Your task to perform on an android device: Search for "dell alienware" on amazon, select the first entry, and add it to the cart. Image 0: 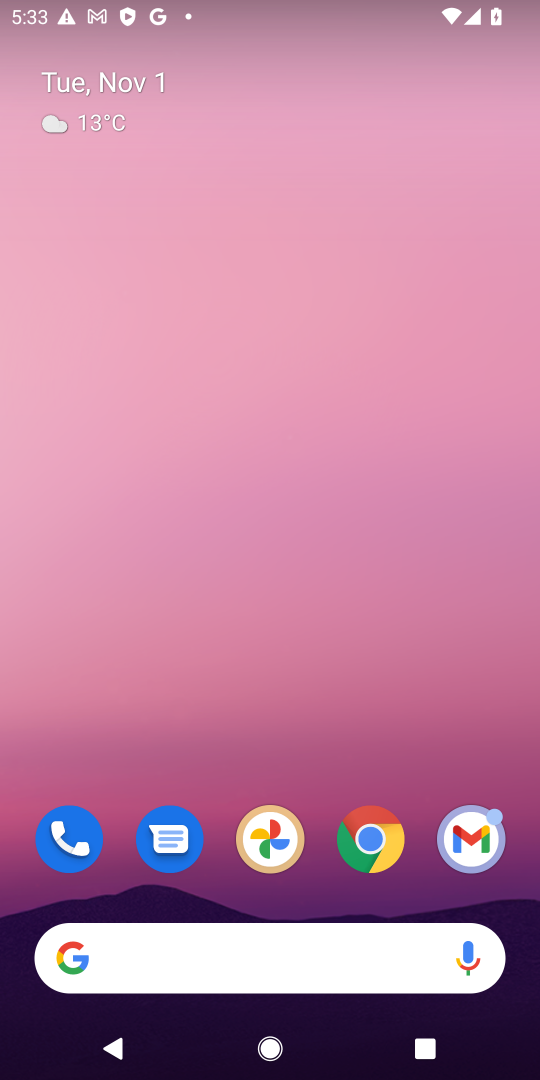
Step 0: drag from (321, 879) to (408, 96)
Your task to perform on an android device: Search for "dell alienware" on amazon, select the first entry, and add it to the cart. Image 1: 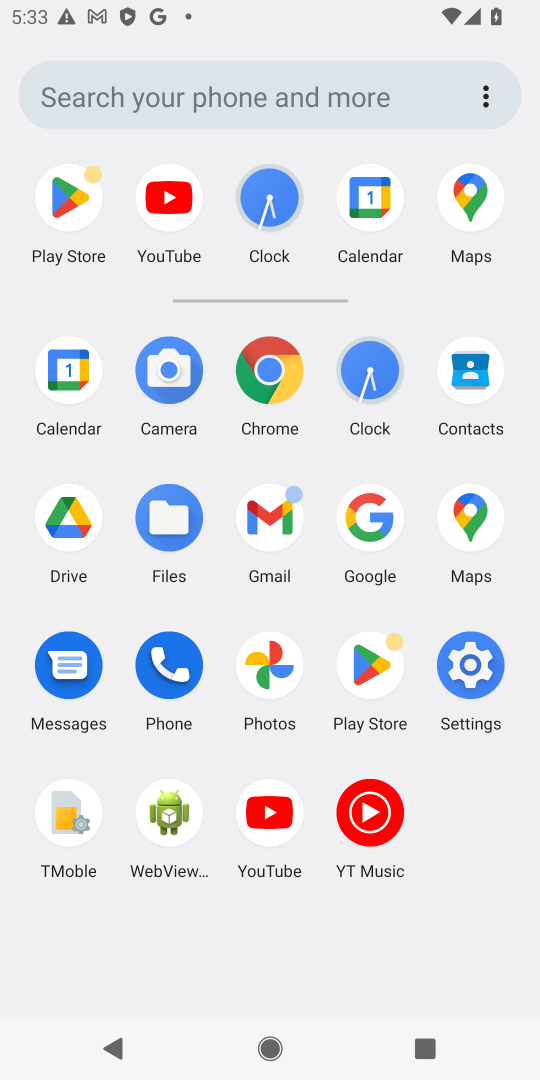
Step 1: click (262, 381)
Your task to perform on an android device: Search for "dell alienware" on amazon, select the first entry, and add it to the cart. Image 2: 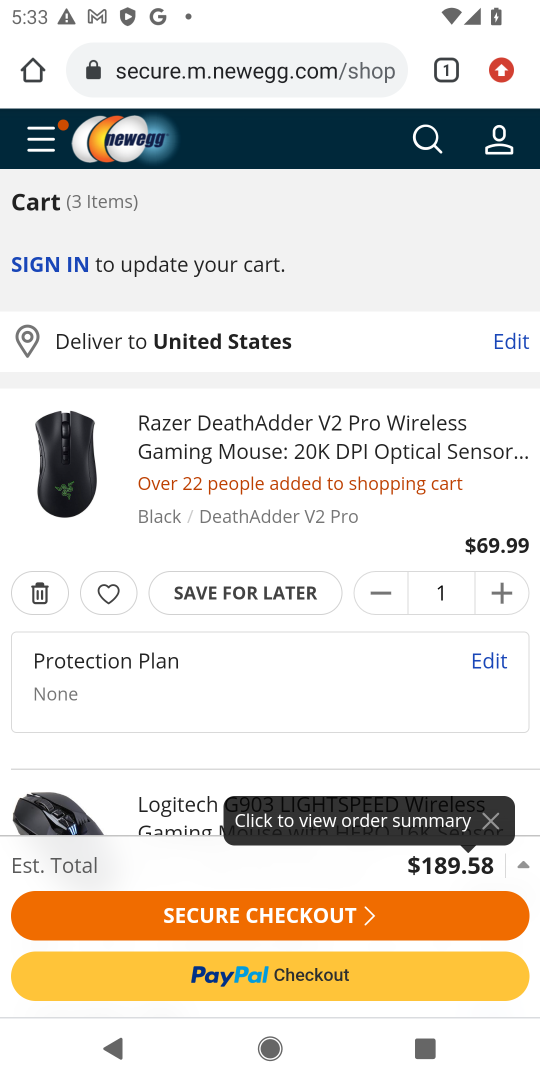
Step 2: click (268, 69)
Your task to perform on an android device: Search for "dell alienware" on amazon, select the first entry, and add it to the cart. Image 3: 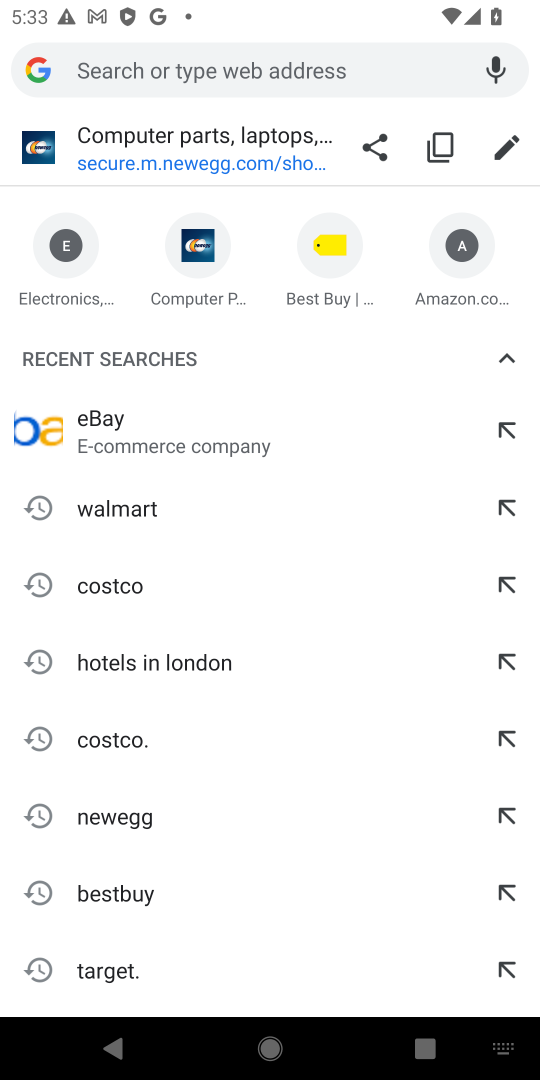
Step 3: type "amazon.com"
Your task to perform on an android device: Search for "dell alienware" on amazon, select the first entry, and add it to the cart. Image 4: 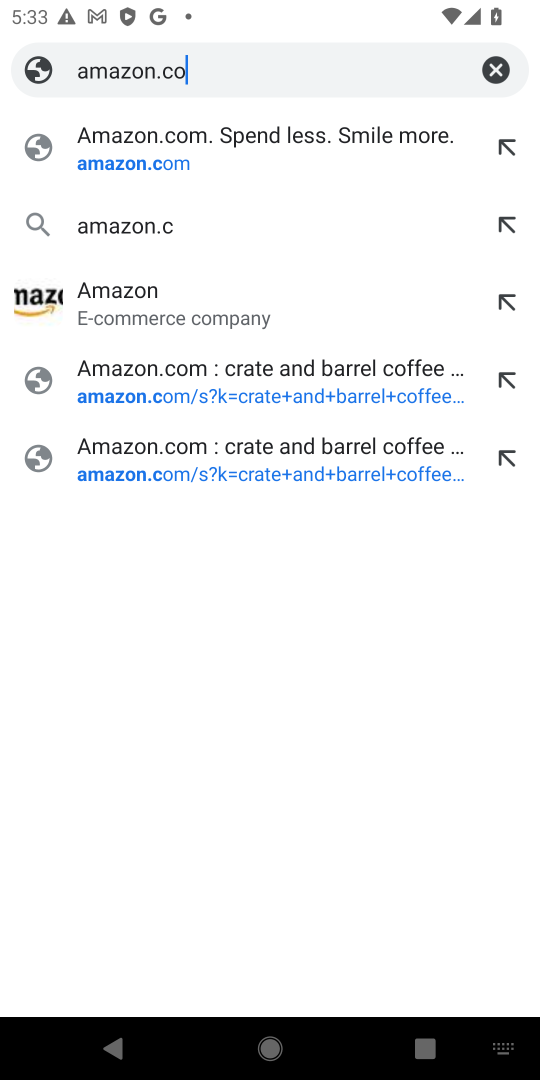
Step 4: press enter
Your task to perform on an android device: Search for "dell alienware" on amazon, select the first entry, and add it to the cart. Image 5: 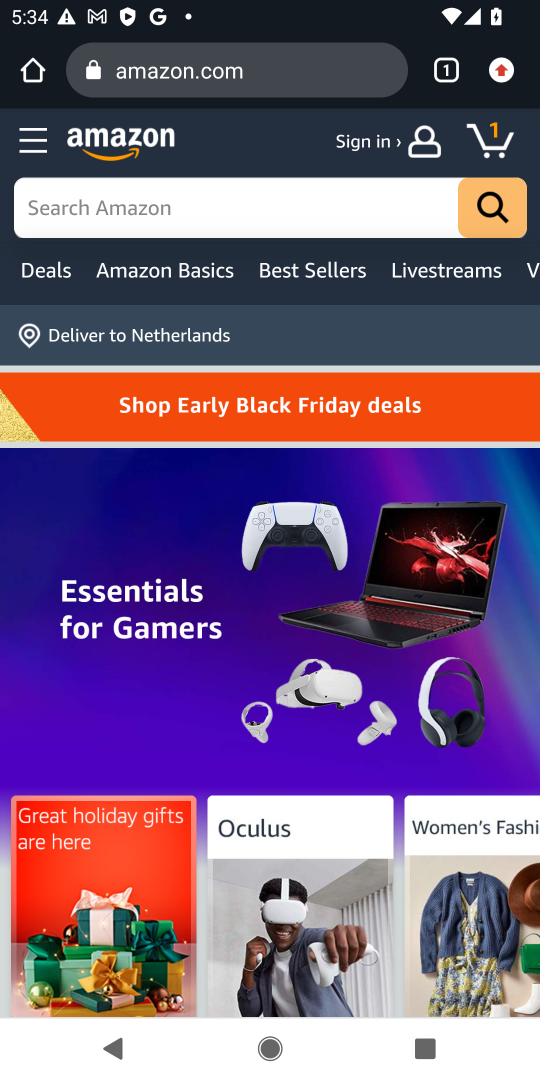
Step 5: click (251, 198)
Your task to perform on an android device: Search for "dell alienware" on amazon, select the first entry, and add it to the cart. Image 6: 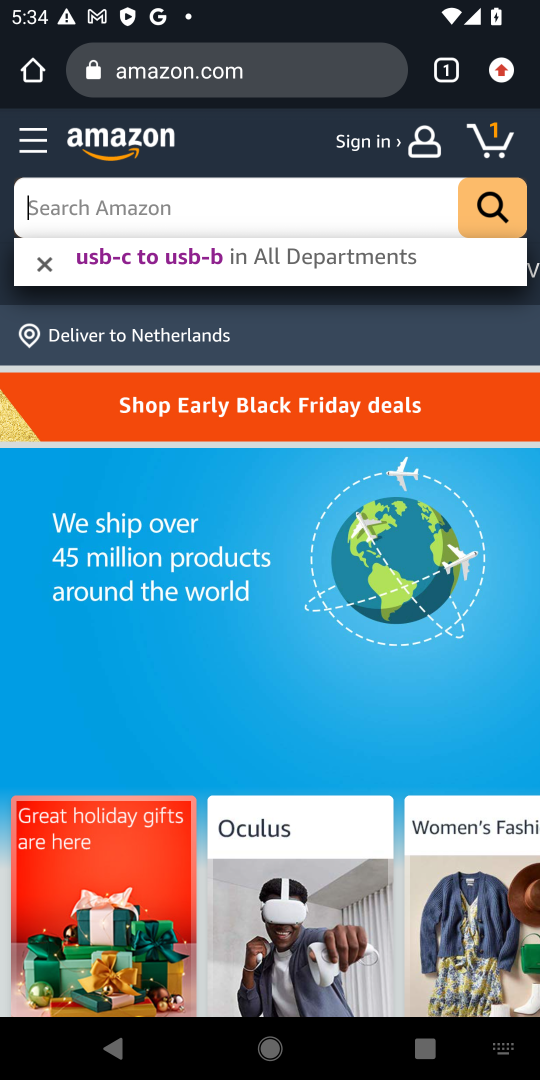
Step 6: type "dell alienware"
Your task to perform on an android device: Search for "dell alienware" on amazon, select the first entry, and add it to the cart. Image 7: 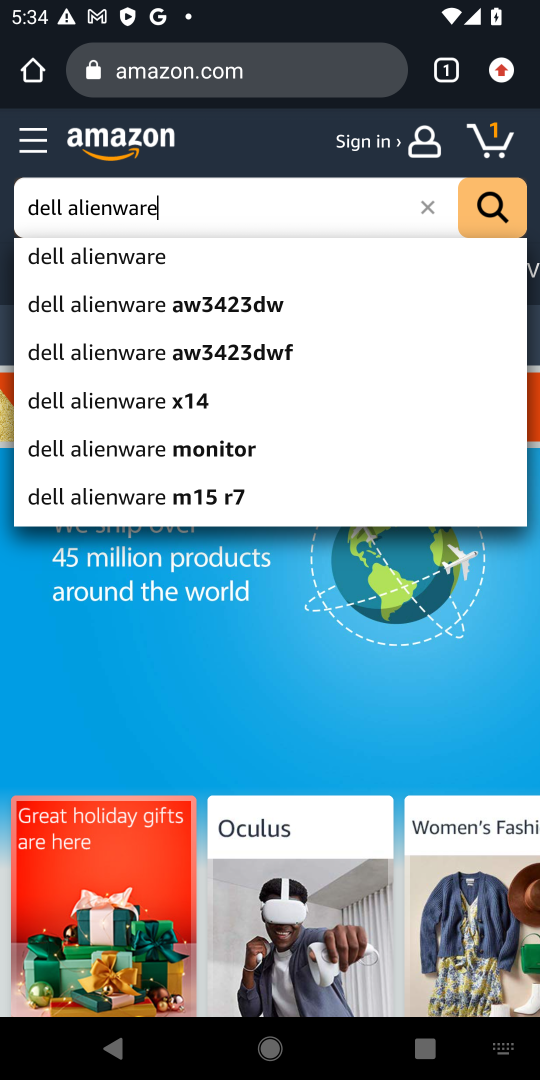
Step 7: press enter
Your task to perform on an android device: Search for "dell alienware" on amazon, select the first entry, and add it to the cart. Image 8: 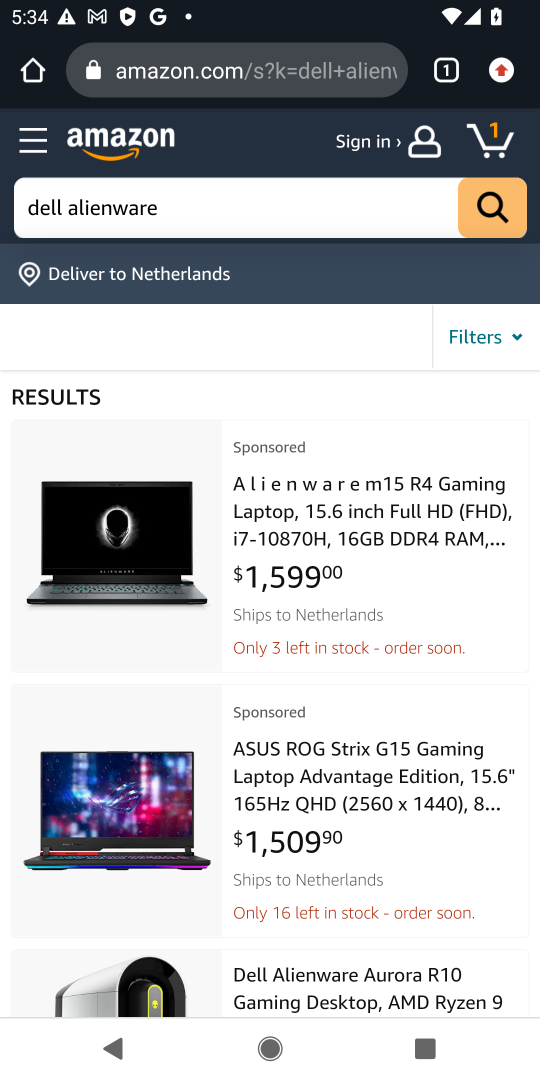
Step 8: drag from (362, 879) to (375, 376)
Your task to perform on an android device: Search for "dell alienware" on amazon, select the first entry, and add it to the cart. Image 9: 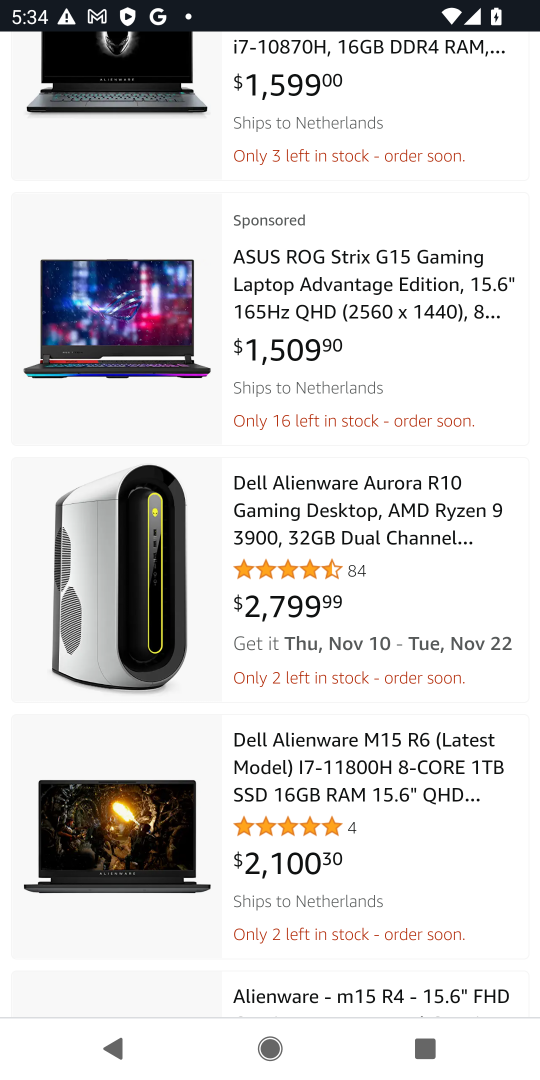
Step 9: click (271, 604)
Your task to perform on an android device: Search for "dell alienware" on amazon, select the first entry, and add it to the cart. Image 10: 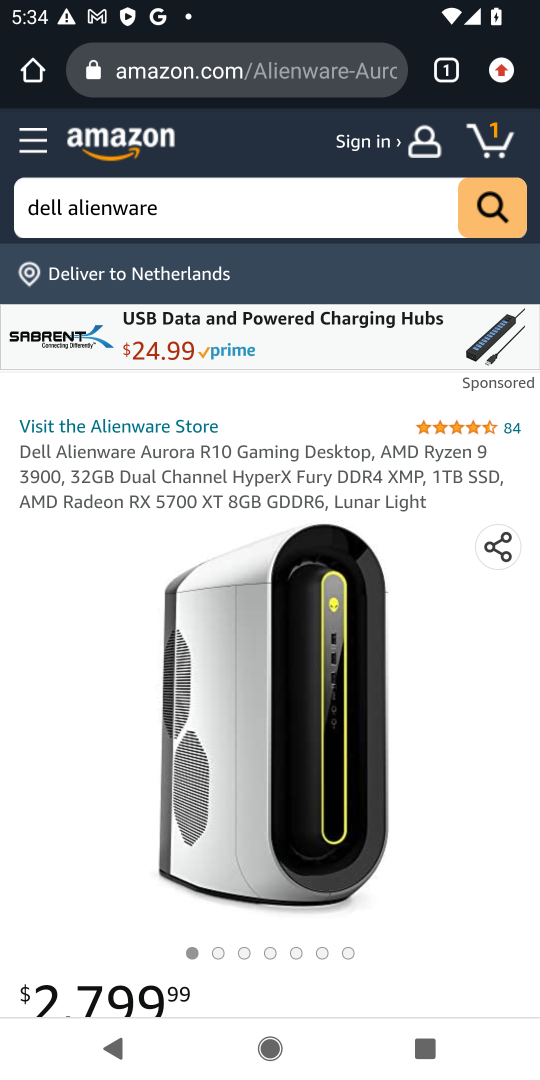
Step 10: drag from (331, 806) to (388, 344)
Your task to perform on an android device: Search for "dell alienware" on amazon, select the first entry, and add it to the cart. Image 11: 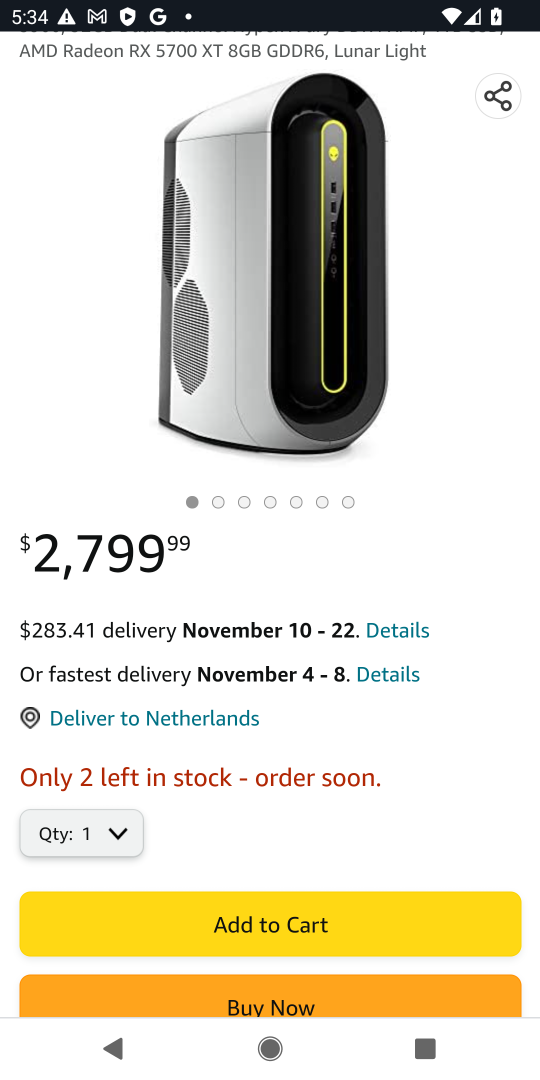
Step 11: drag from (347, 873) to (377, 219)
Your task to perform on an android device: Search for "dell alienware" on amazon, select the first entry, and add it to the cart. Image 12: 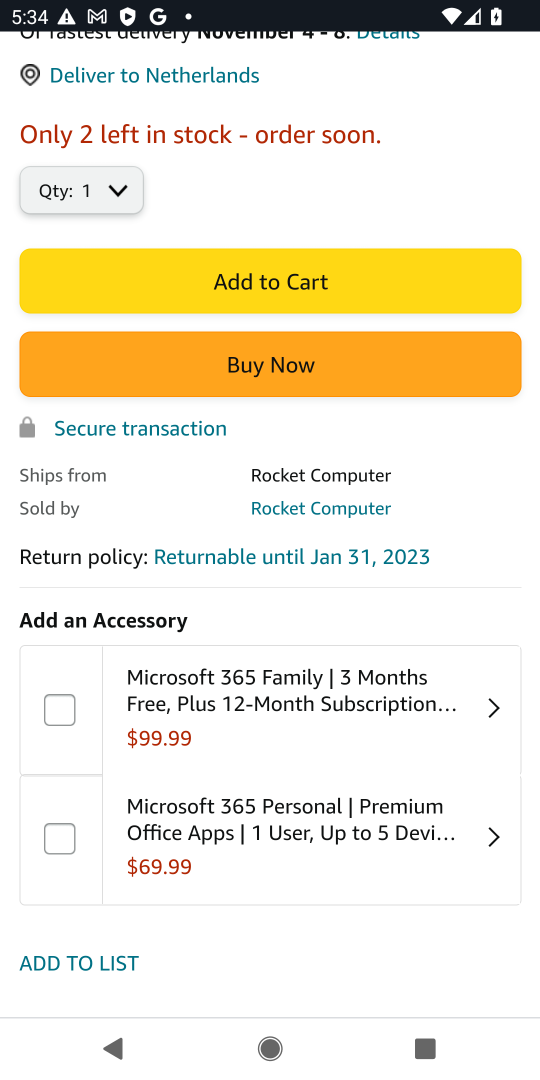
Step 12: click (314, 282)
Your task to perform on an android device: Search for "dell alienware" on amazon, select the first entry, and add it to the cart. Image 13: 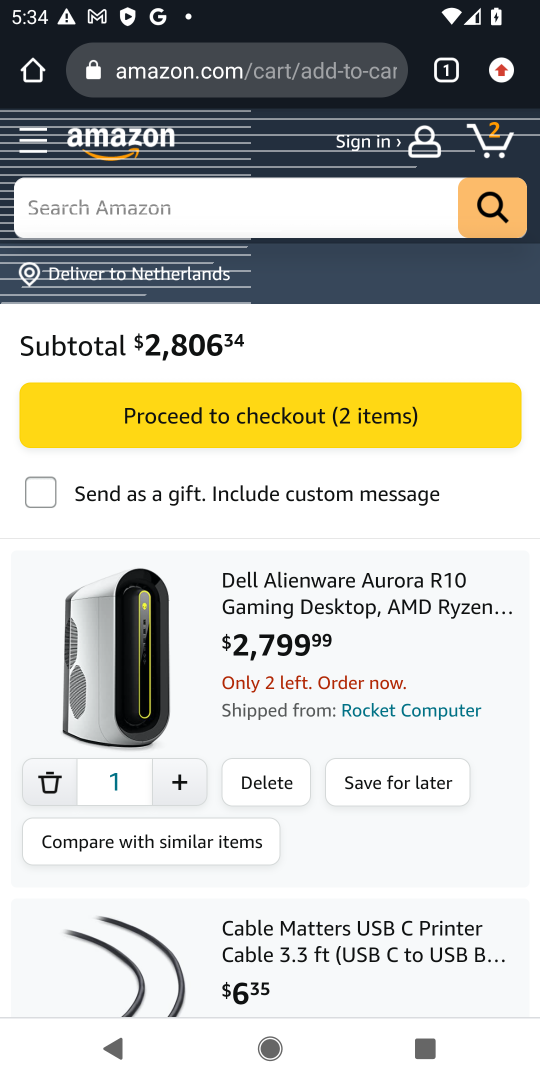
Step 13: task complete